Your task to perform on an android device: turn off picture-in-picture Image 0: 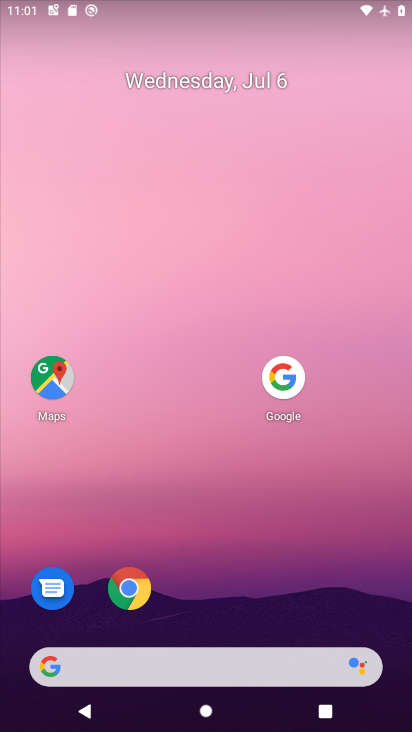
Step 0: click (131, 583)
Your task to perform on an android device: turn off picture-in-picture Image 1: 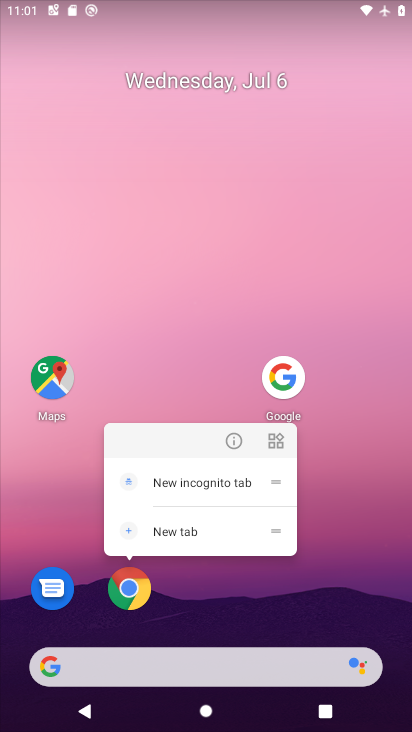
Step 1: click (235, 434)
Your task to perform on an android device: turn off picture-in-picture Image 2: 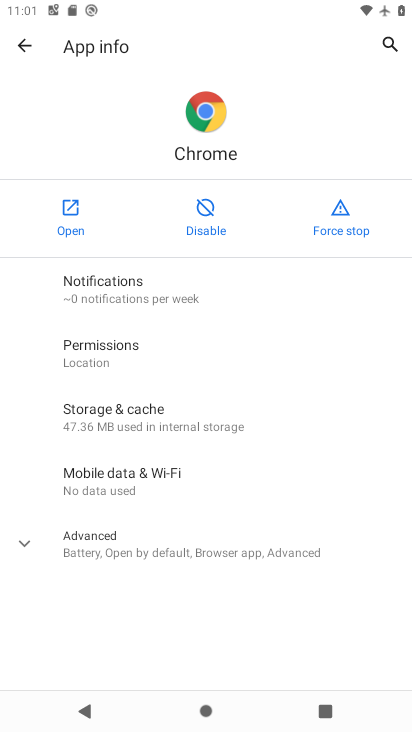
Step 2: click (114, 542)
Your task to perform on an android device: turn off picture-in-picture Image 3: 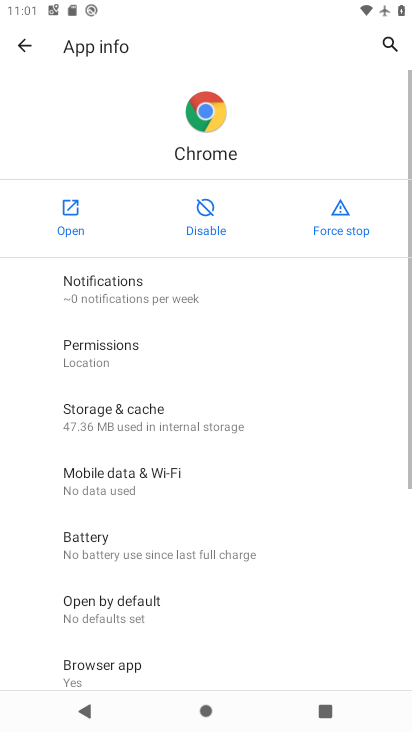
Step 3: drag from (203, 481) to (304, 97)
Your task to perform on an android device: turn off picture-in-picture Image 4: 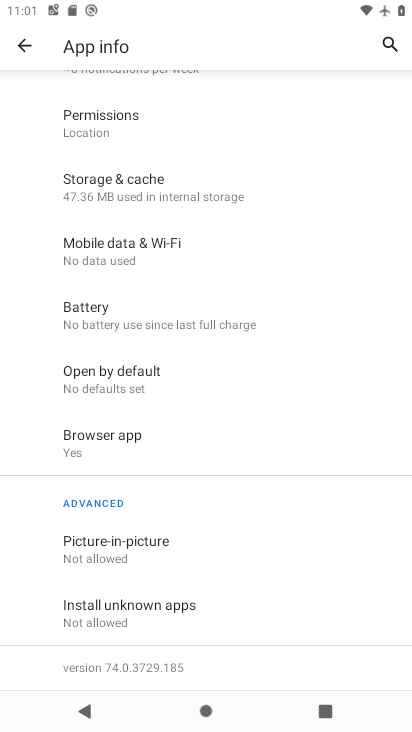
Step 4: drag from (146, 603) to (356, 94)
Your task to perform on an android device: turn off picture-in-picture Image 5: 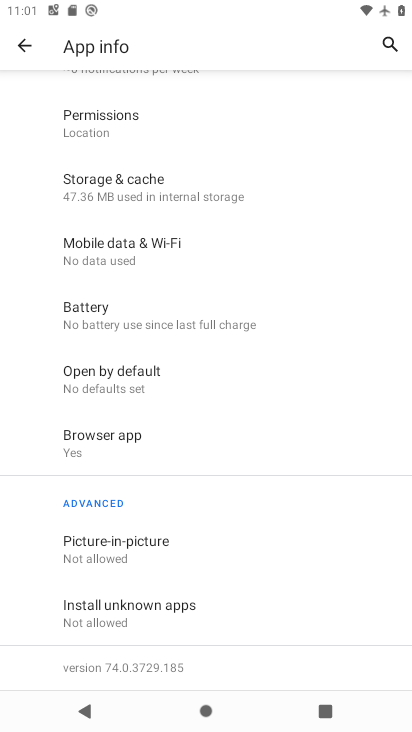
Step 5: click (143, 548)
Your task to perform on an android device: turn off picture-in-picture Image 6: 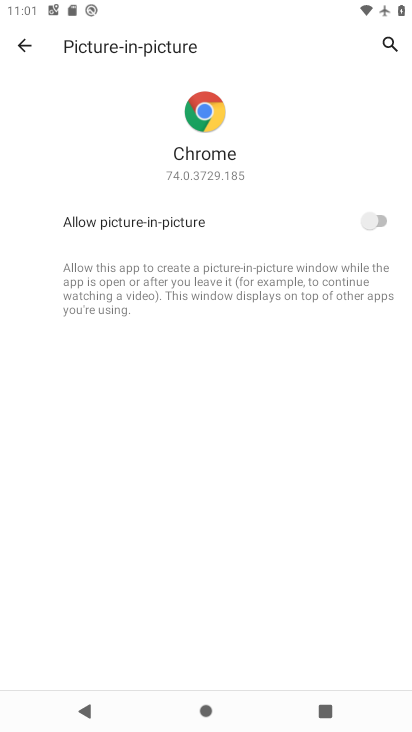
Step 6: task complete